Your task to perform on an android device: Clear the cart on newegg.com. Image 0: 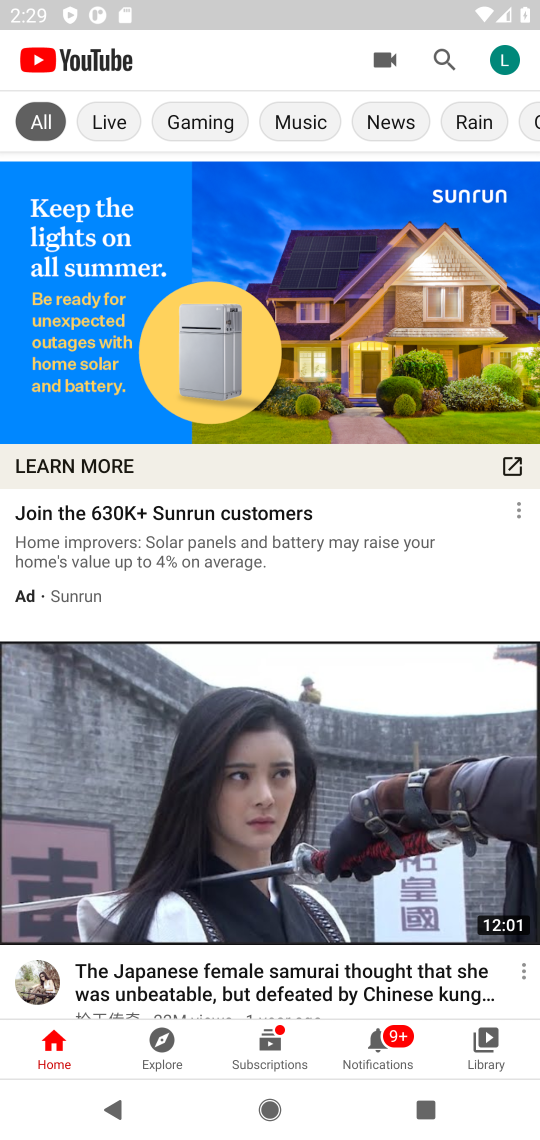
Step 0: press home button
Your task to perform on an android device: Clear the cart on newegg.com. Image 1: 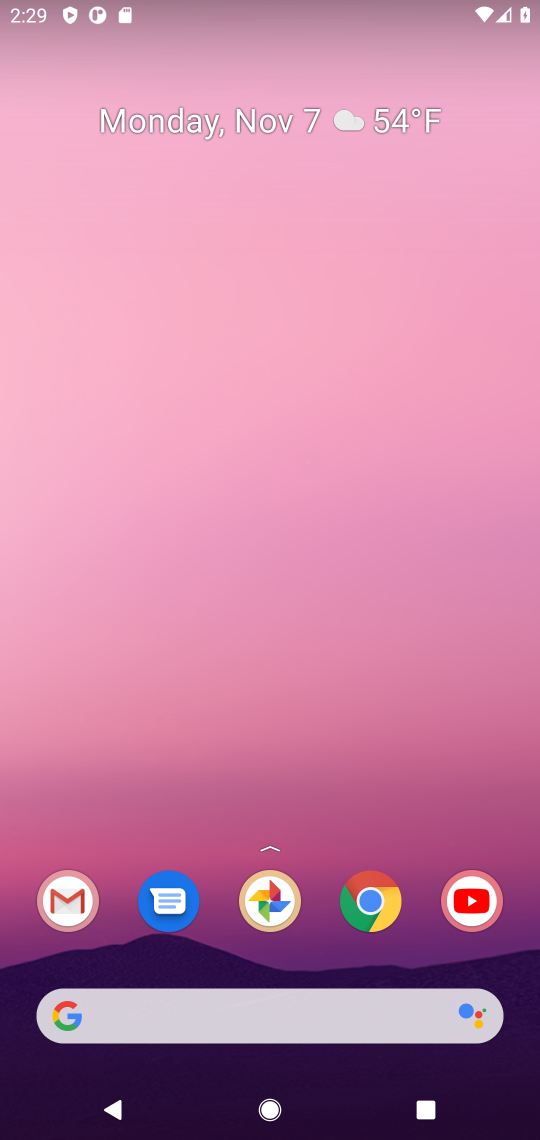
Step 1: click (365, 917)
Your task to perform on an android device: Clear the cart on newegg.com. Image 2: 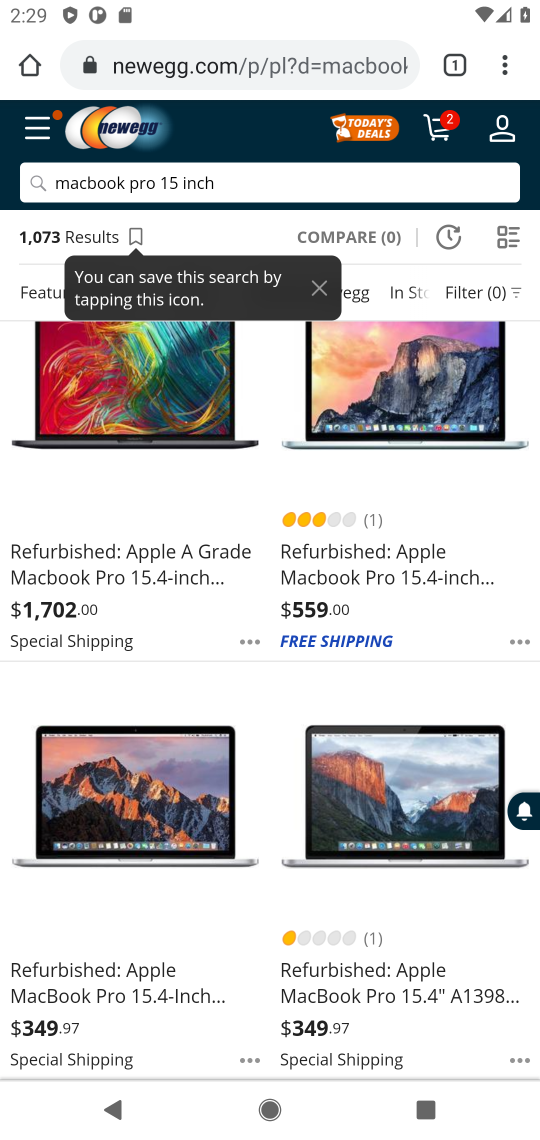
Step 2: click (451, 127)
Your task to perform on an android device: Clear the cart on newegg.com. Image 3: 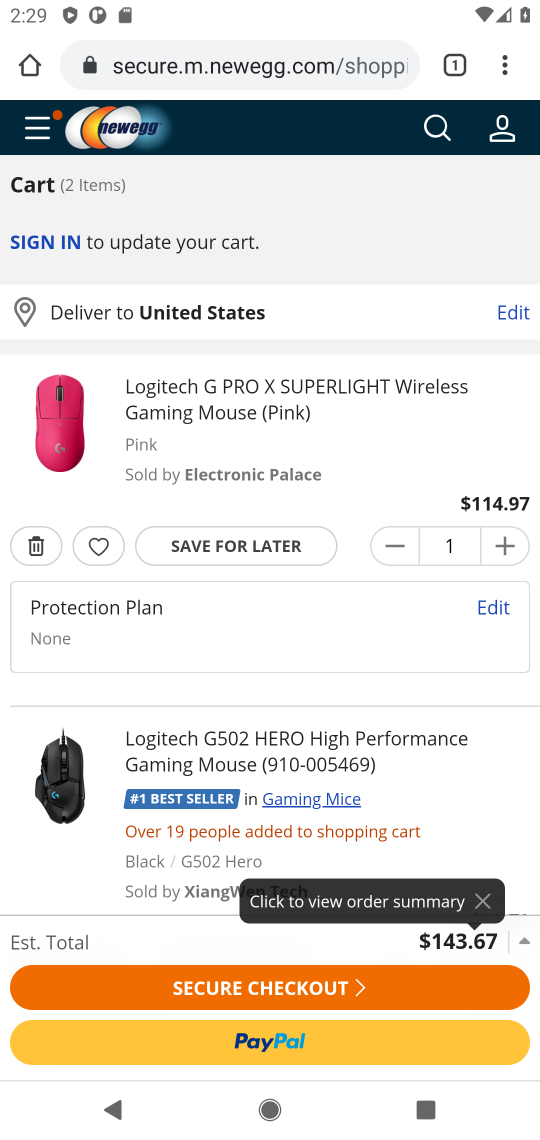
Step 3: click (41, 549)
Your task to perform on an android device: Clear the cart on newegg.com. Image 4: 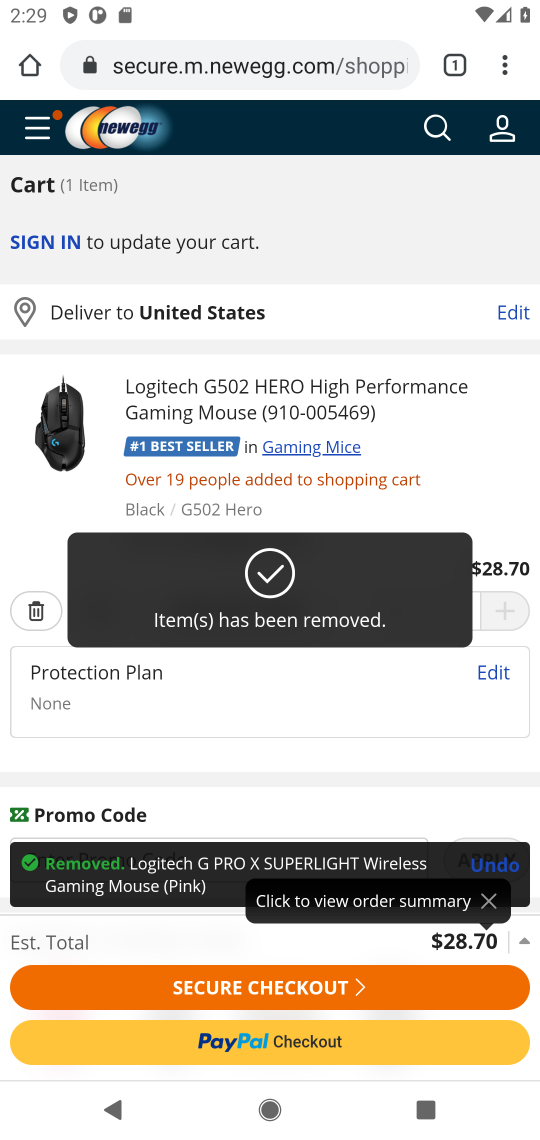
Step 4: click (34, 607)
Your task to perform on an android device: Clear the cart on newegg.com. Image 5: 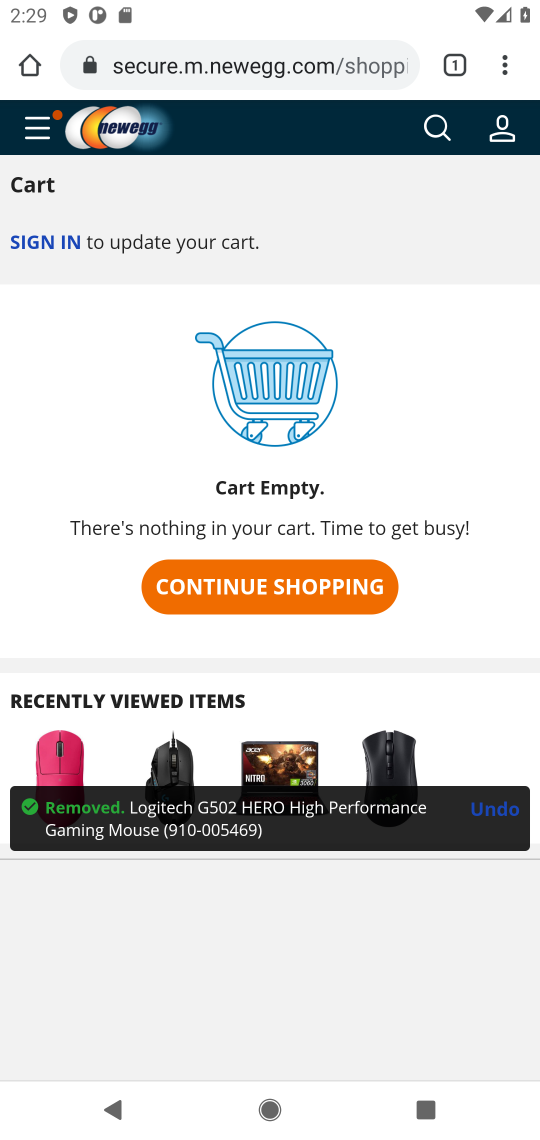
Step 5: task complete